Your task to perform on an android device: Open maps Image 0: 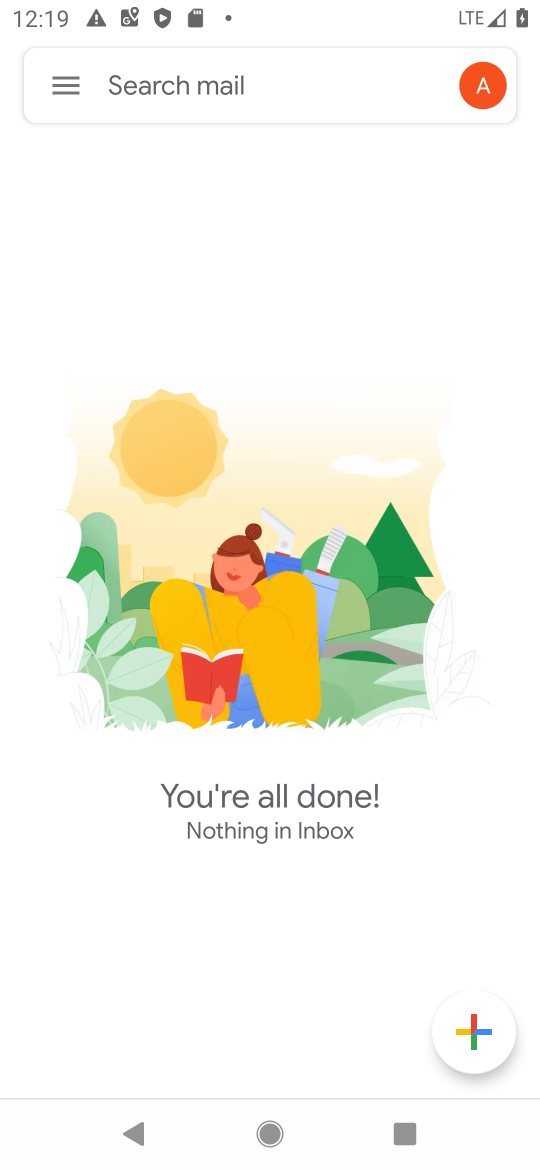
Step 0: press home button
Your task to perform on an android device: Open maps Image 1: 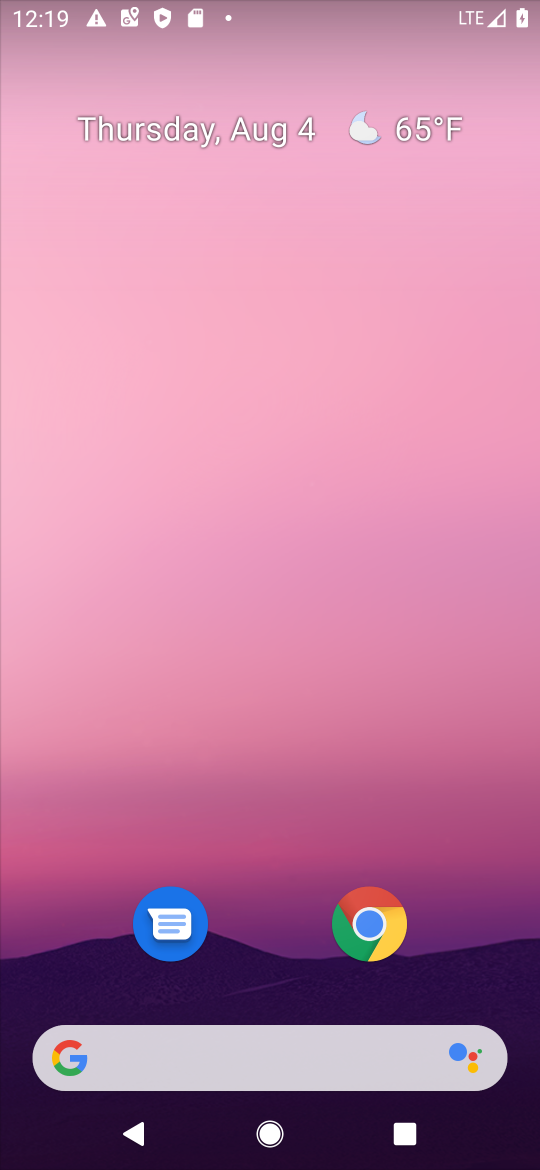
Step 1: drag from (251, 436) to (296, 264)
Your task to perform on an android device: Open maps Image 2: 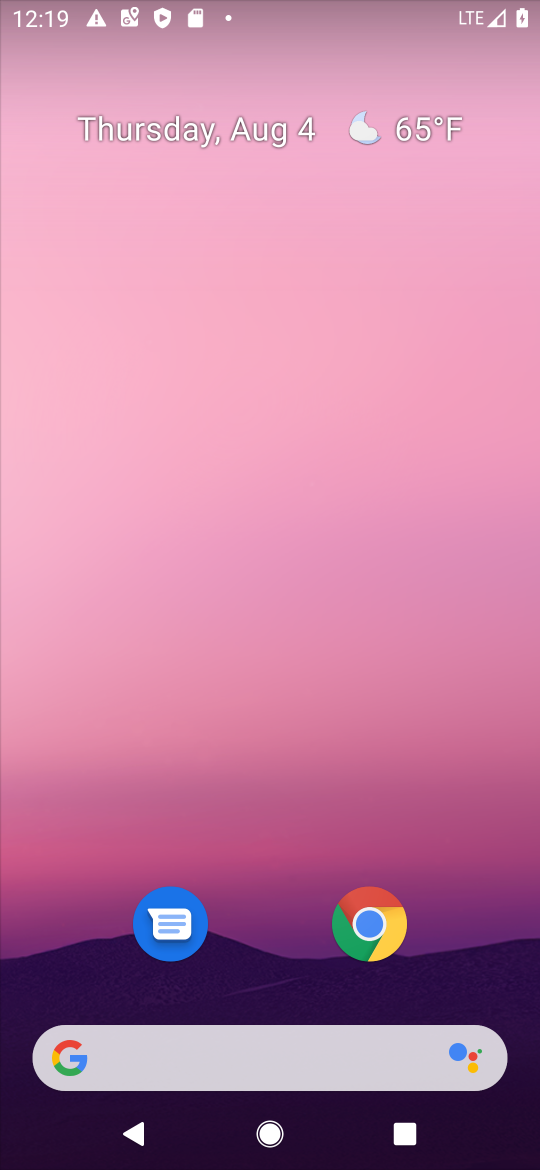
Step 2: drag from (62, 1099) to (108, 201)
Your task to perform on an android device: Open maps Image 3: 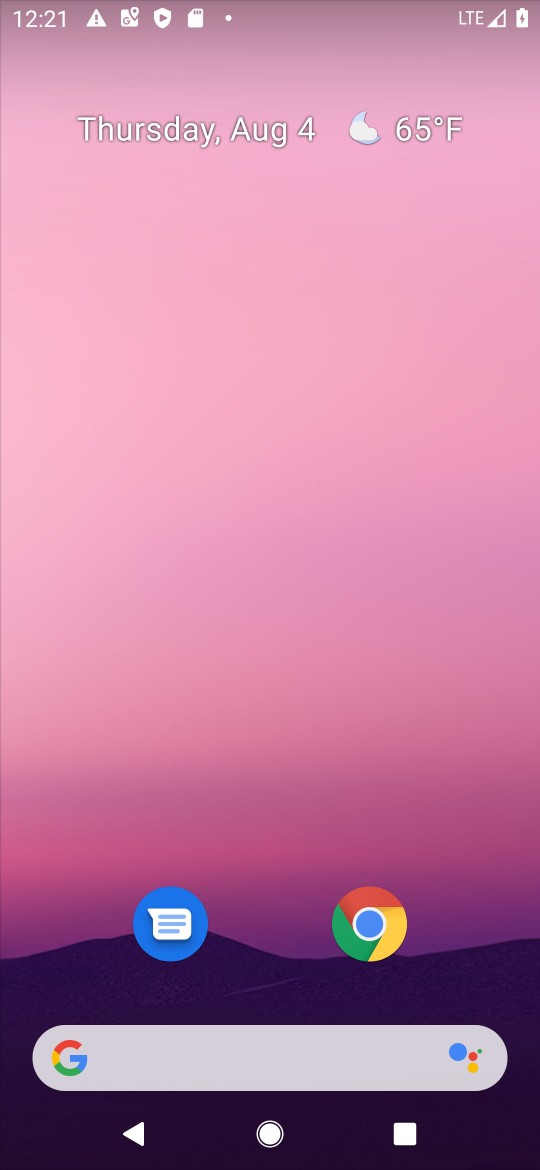
Step 3: drag from (42, 1058) to (116, 0)
Your task to perform on an android device: Open maps Image 4: 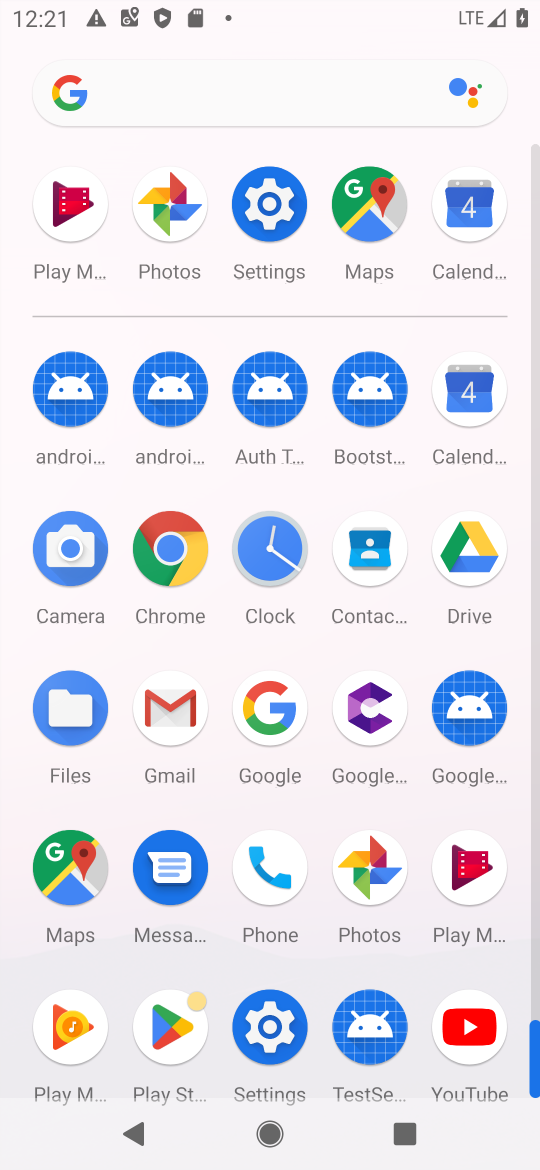
Step 4: click (365, 214)
Your task to perform on an android device: Open maps Image 5: 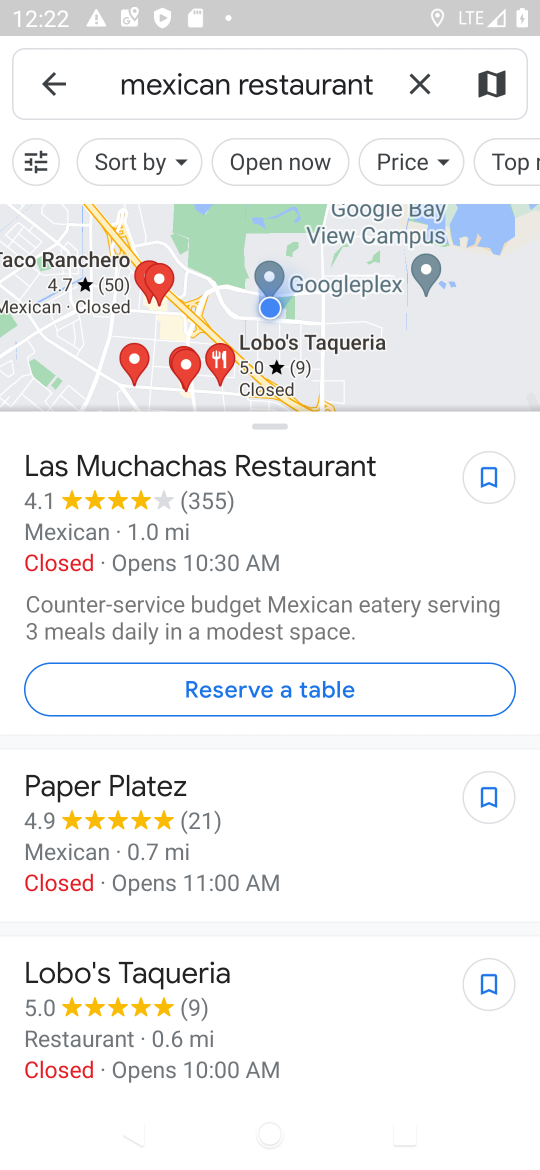
Step 5: click (51, 78)
Your task to perform on an android device: Open maps Image 6: 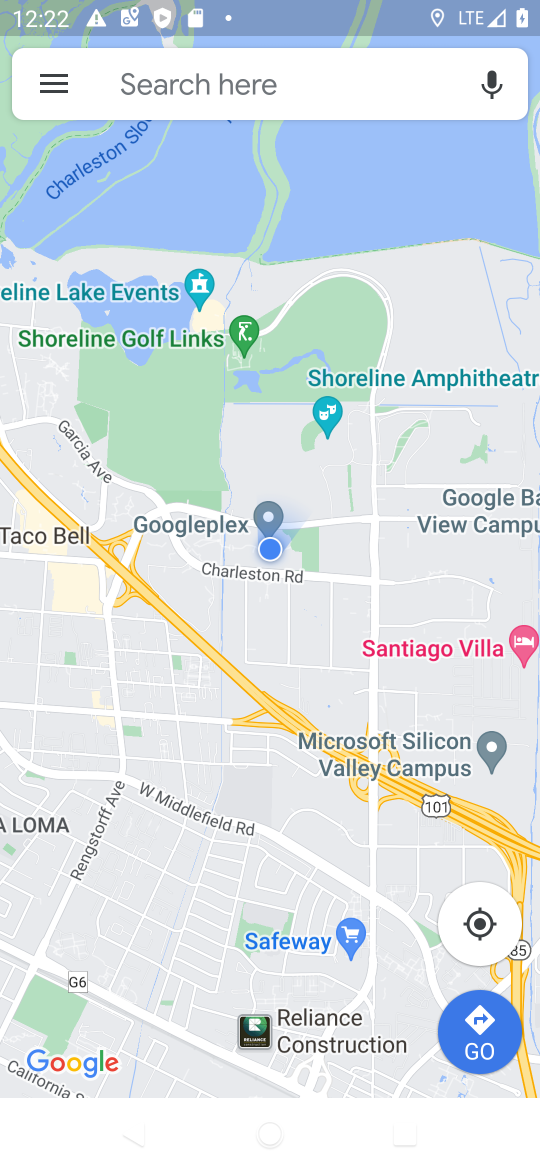
Step 6: task complete